Your task to perform on an android device: Is it going to rain this weekend? Image 0: 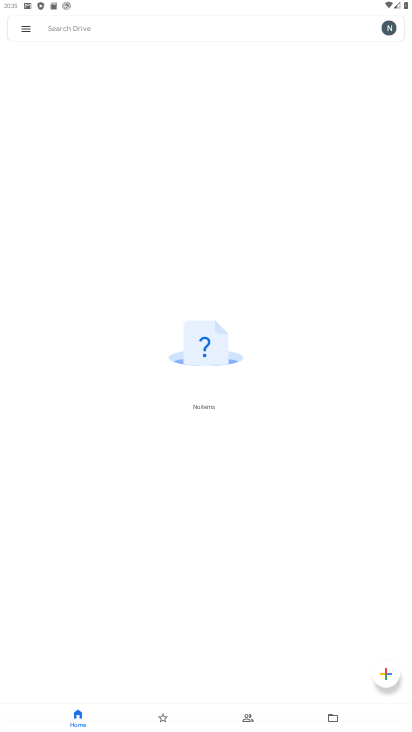
Step 0: press home button
Your task to perform on an android device: Is it going to rain this weekend? Image 1: 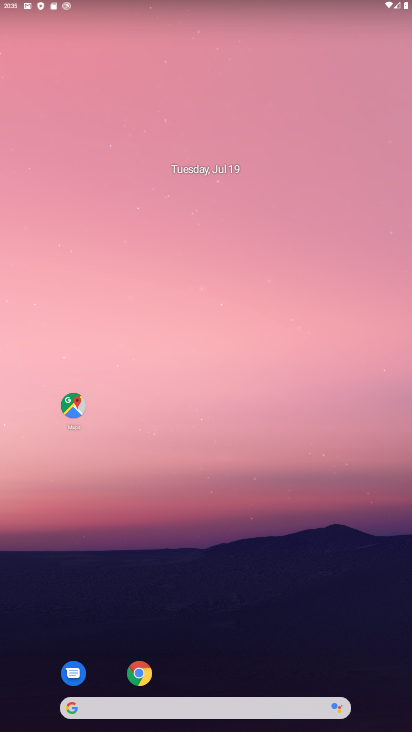
Step 1: drag from (236, 661) to (343, 1)
Your task to perform on an android device: Is it going to rain this weekend? Image 2: 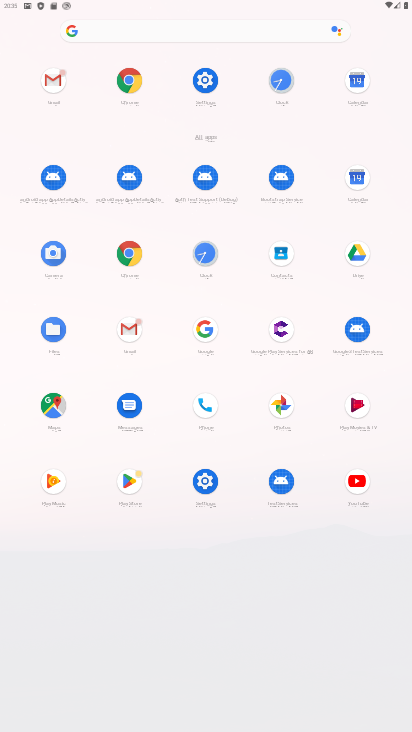
Step 2: click (212, 32)
Your task to perform on an android device: Is it going to rain this weekend? Image 3: 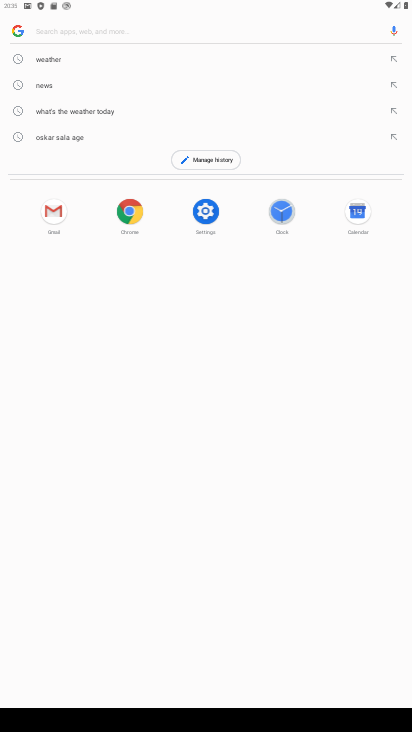
Step 3: click (82, 61)
Your task to perform on an android device: Is it going to rain this weekend? Image 4: 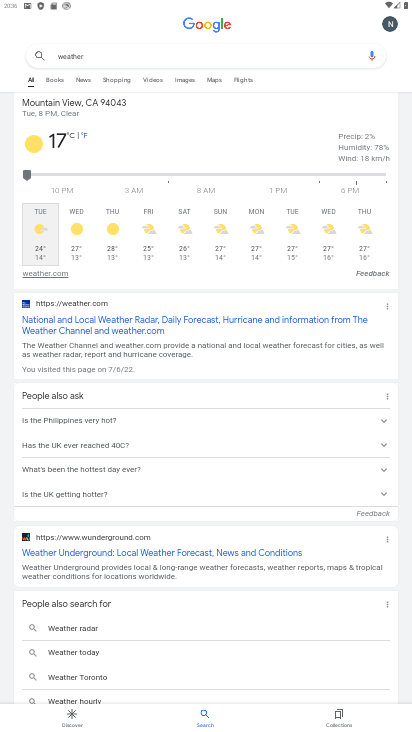
Step 4: task complete